Your task to perform on an android device: see tabs open on other devices in the chrome app Image 0: 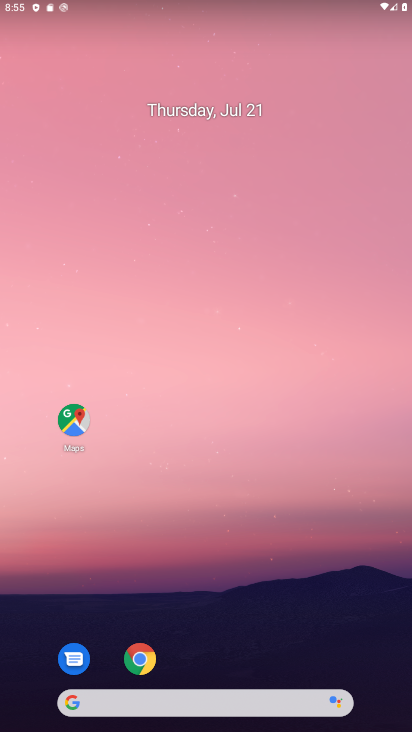
Step 0: click (144, 664)
Your task to perform on an android device: see tabs open on other devices in the chrome app Image 1: 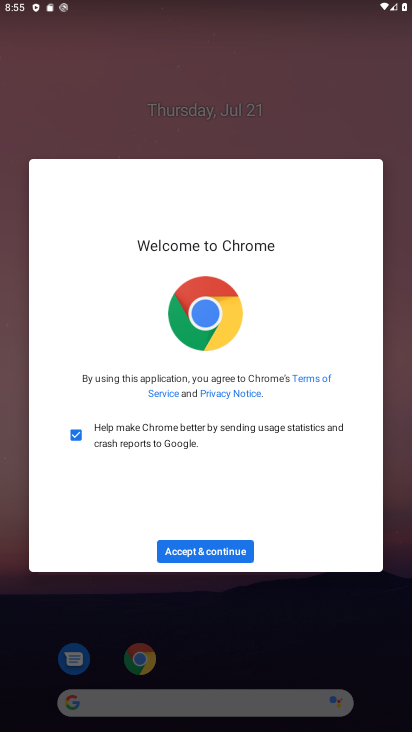
Step 1: click (200, 563)
Your task to perform on an android device: see tabs open on other devices in the chrome app Image 2: 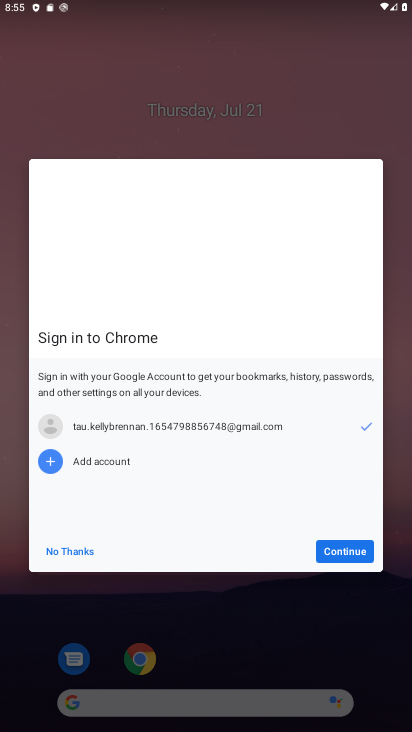
Step 2: click (346, 557)
Your task to perform on an android device: see tabs open on other devices in the chrome app Image 3: 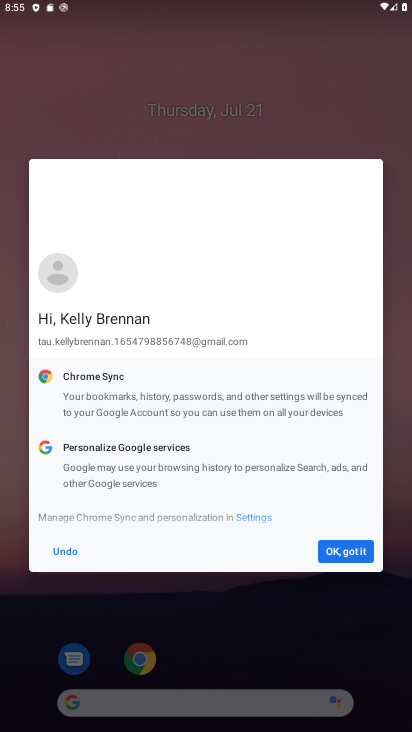
Step 3: click (363, 559)
Your task to perform on an android device: see tabs open on other devices in the chrome app Image 4: 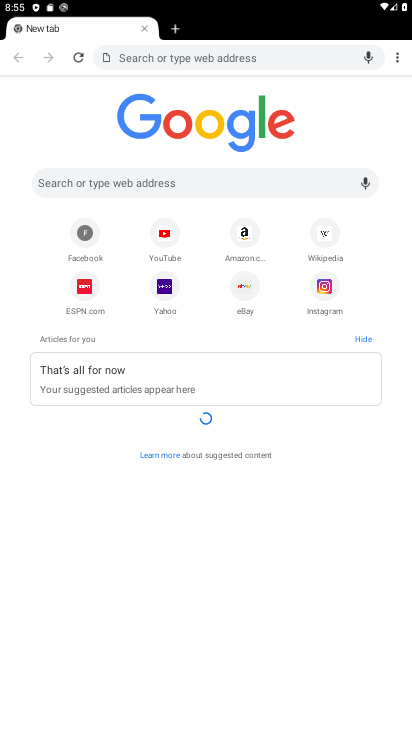
Step 4: click (402, 56)
Your task to perform on an android device: see tabs open on other devices in the chrome app Image 5: 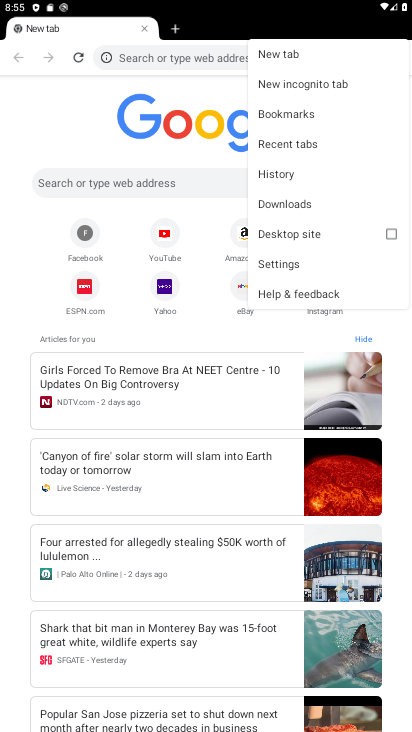
Step 5: click (280, 168)
Your task to perform on an android device: see tabs open on other devices in the chrome app Image 6: 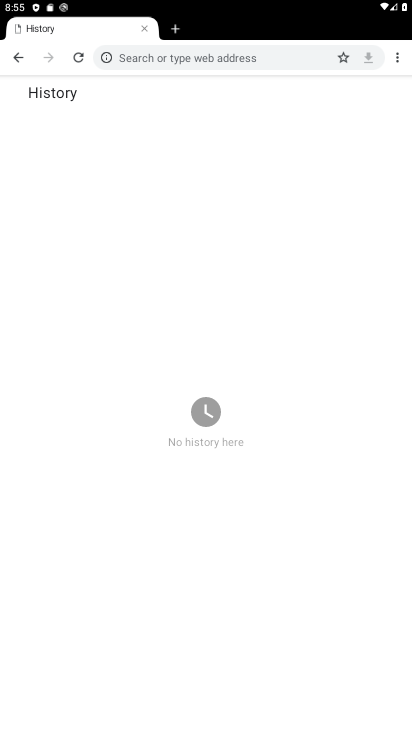
Step 6: task complete